Your task to perform on an android device: change the clock display to show seconds Image 0: 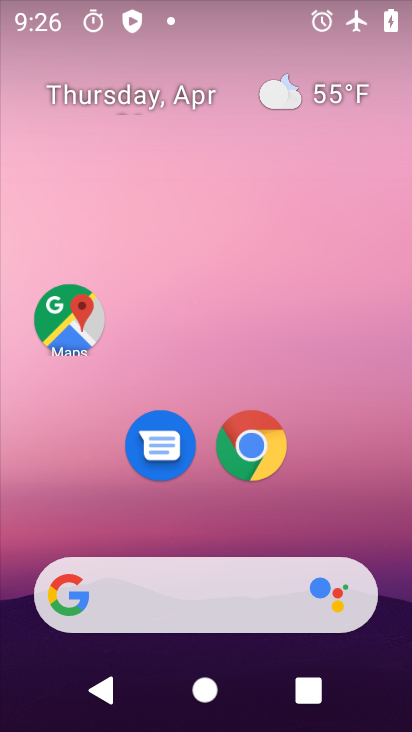
Step 0: drag from (374, 534) to (375, 9)
Your task to perform on an android device: change the clock display to show seconds Image 1: 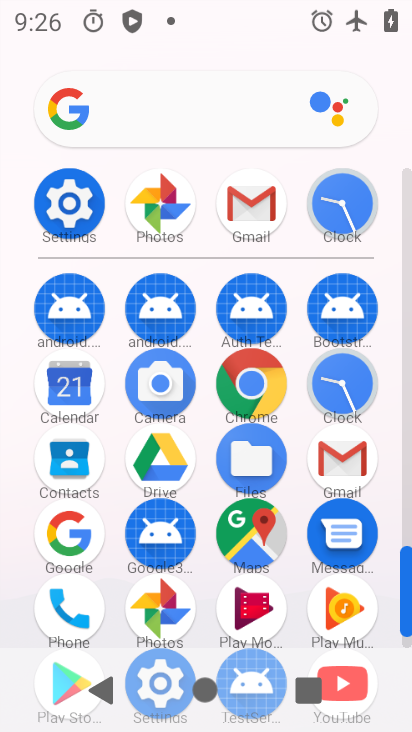
Step 1: click (344, 196)
Your task to perform on an android device: change the clock display to show seconds Image 2: 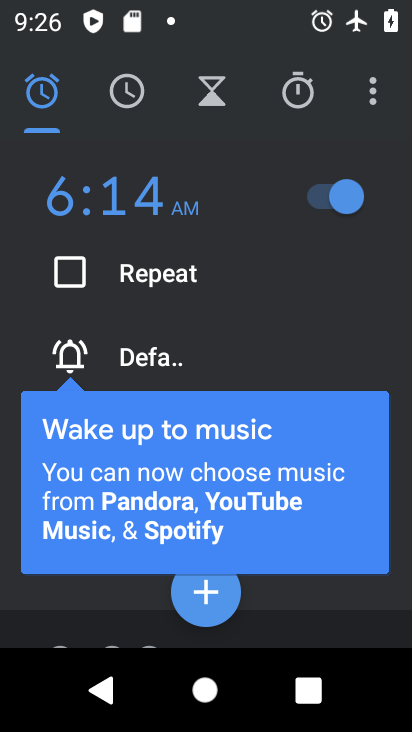
Step 2: click (370, 95)
Your task to perform on an android device: change the clock display to show seconds Image 3: 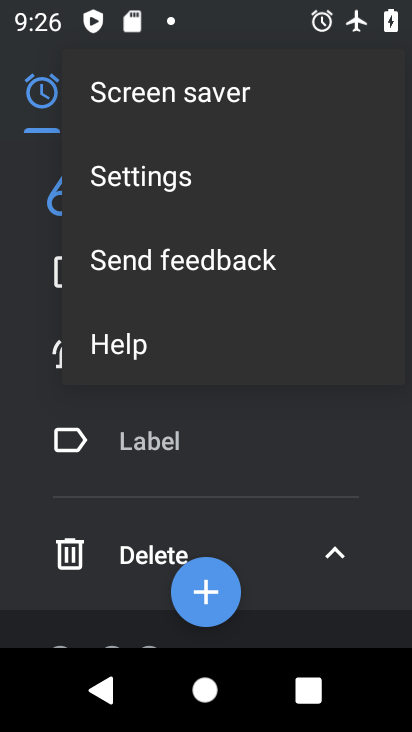
Step 3: click (160, 194)
Your task to perform on an android device: change the clock display to show seconds Image 4: 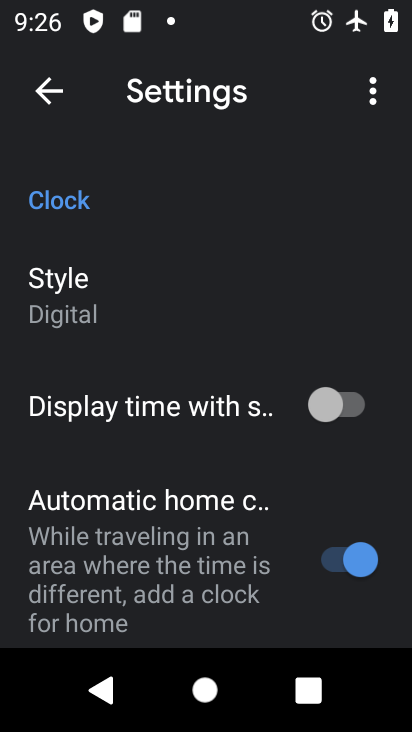
Step 4: click (334, 416)
Your task to perform on an android device: change the clock display to show seconds Image 5: 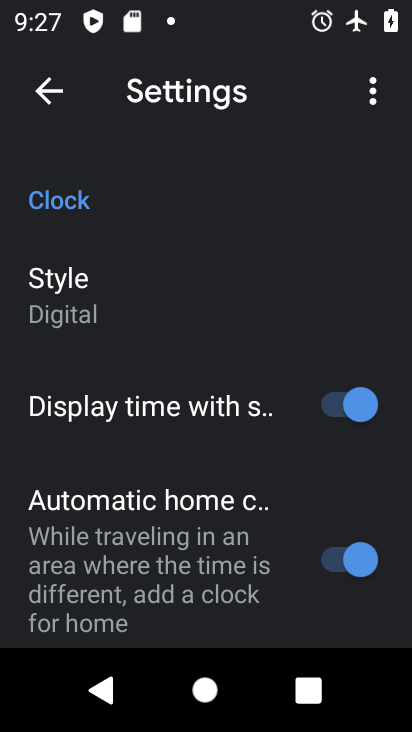
Step 5: task complete